Your task to perform on an android device: turn notification dots off Image 0: 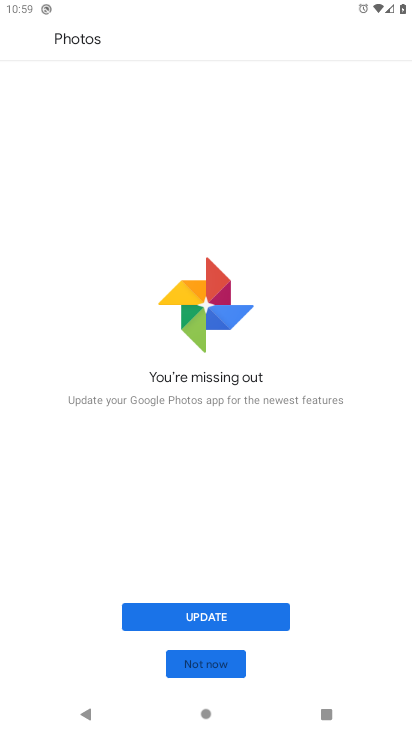
Step 0: press home button
Your task to perform on an android device: turn notification dots off Image 1: 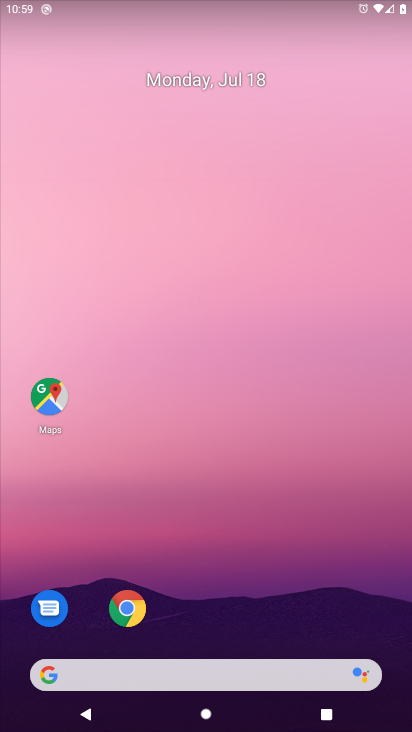
Step 1: drag from (153, 476) to (245, 292)
Your task to perform on an android device: turn notification dots off Image 2: 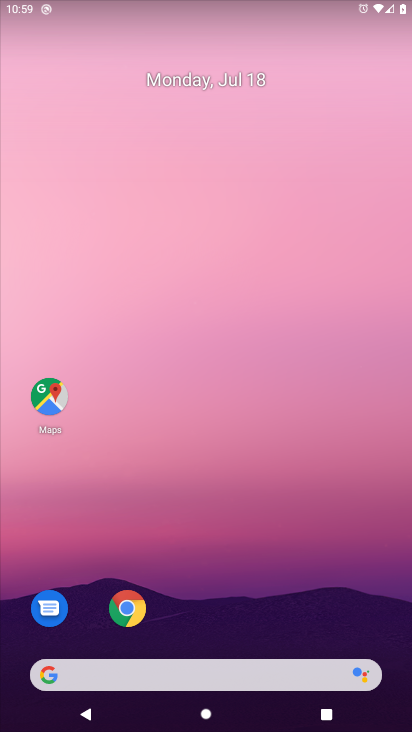
Step 2: drag from (301, 272) to (348, 130)
Your task to perform on an android device: turn notification dots off Image 3: 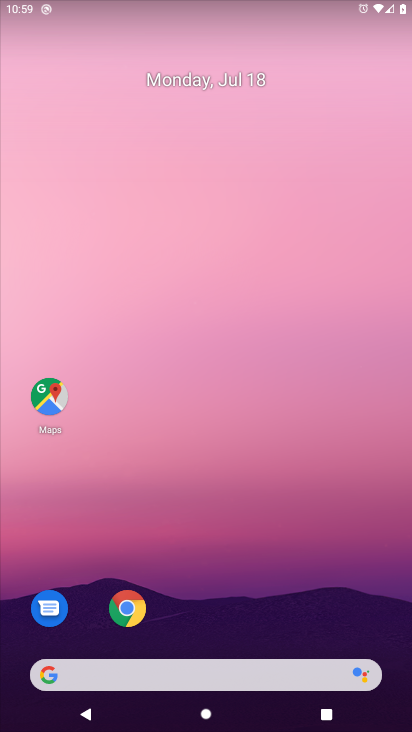
Step 3: drag from (26, 705) to (291, 4)
Your task to perform on an android device: turn notification dots off Image 4: 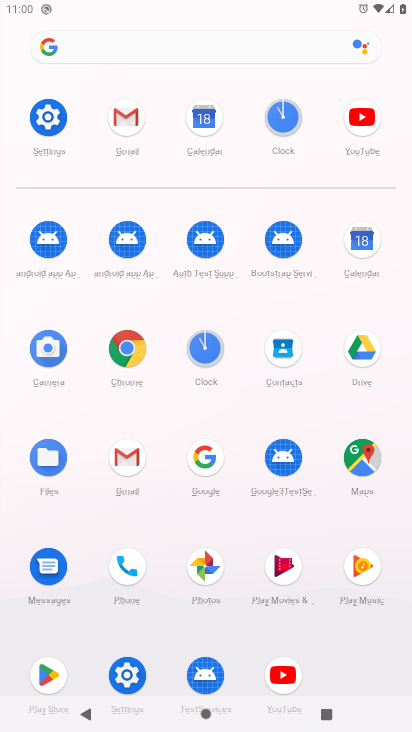
Step 4: click (117, 674)
Your task to perform on an android device: turn notification dots off Image 5: 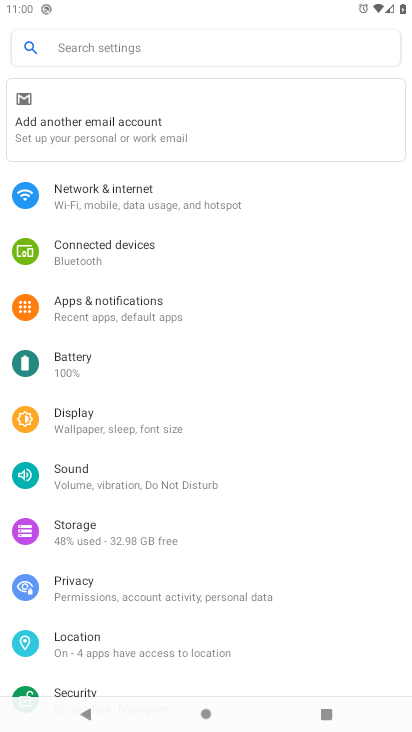
Step 5: click (134, 305)
Your task to perform on an android device: turn notification dots off Image 6: 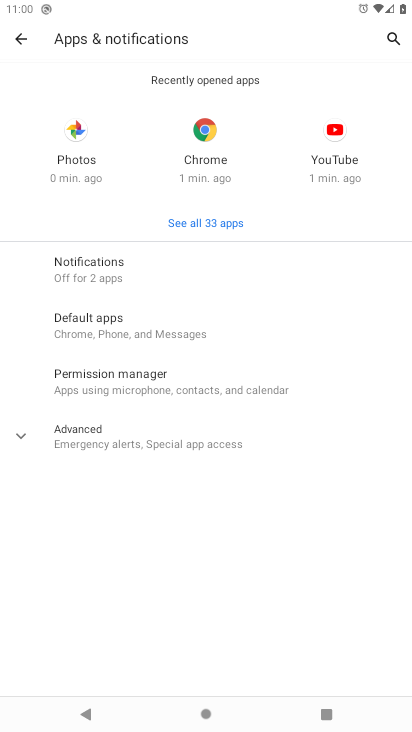
Step 6: click (121, 446)
Your task to perform on an android device: turn notification dots off Image 7: 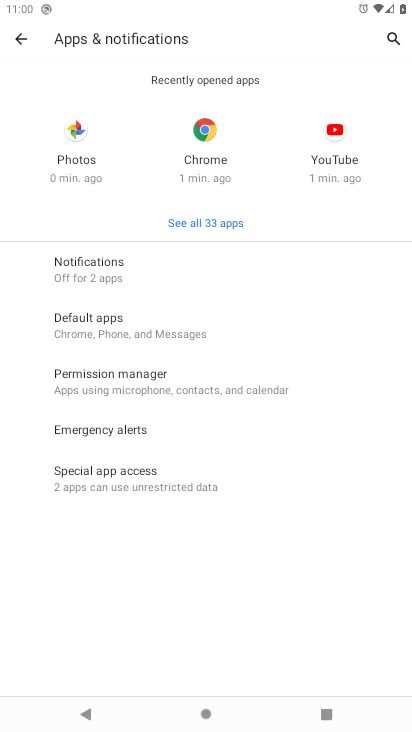
Step 7: click (104, 262)
Your task to perform on an android device: turn notification dots off Image 8: 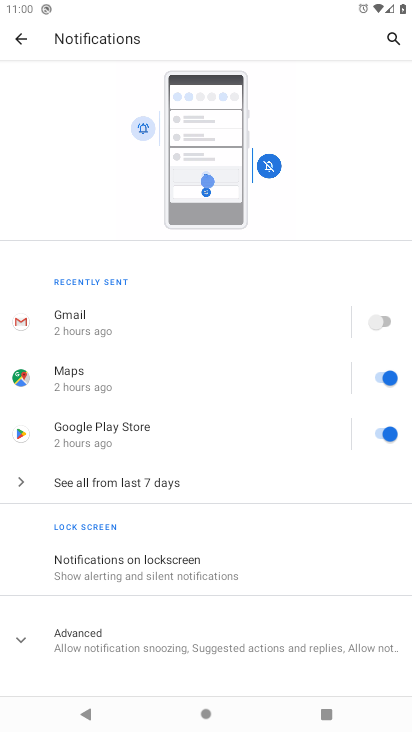
Step 8: click (130, 648)
Your task to perform on an android device: turn notification dots off Image 9: 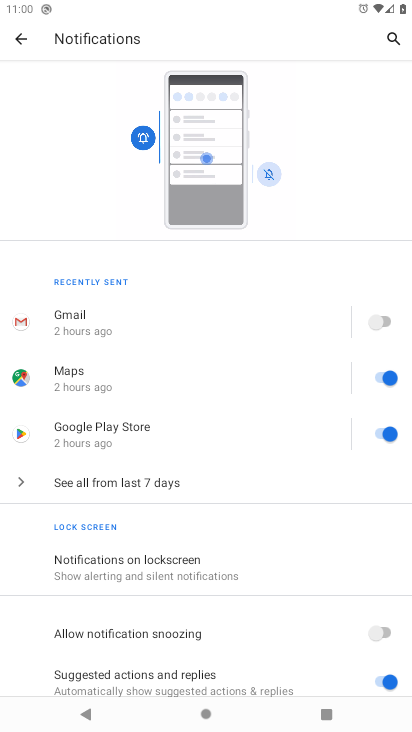
Step 9: drag from (250, 585) to (272, 99)
Your task to perform on an android device: turn notification dots off Image 10: 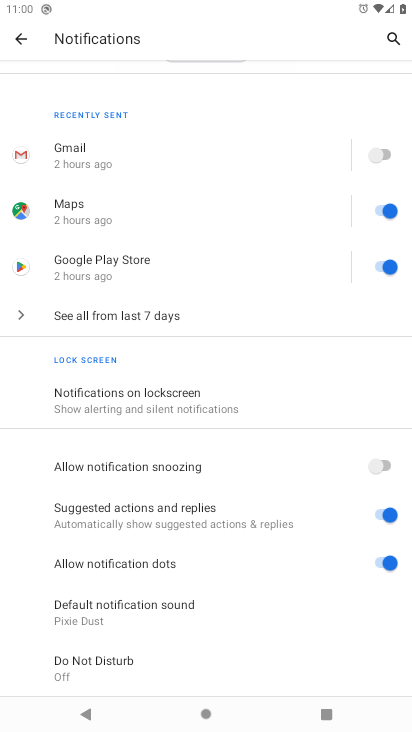
Step 10: click (387, 561)
Your task to perform on an android device: turn notification dots off Image 11: 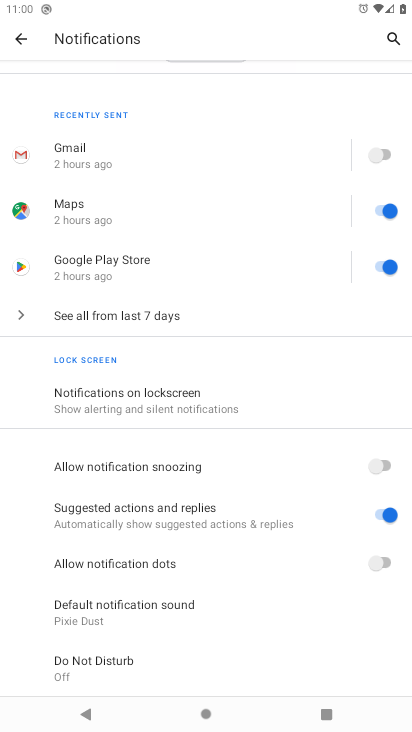
Step 11: task complete